Your task to perform on an android device: Go to network settings Image 0: 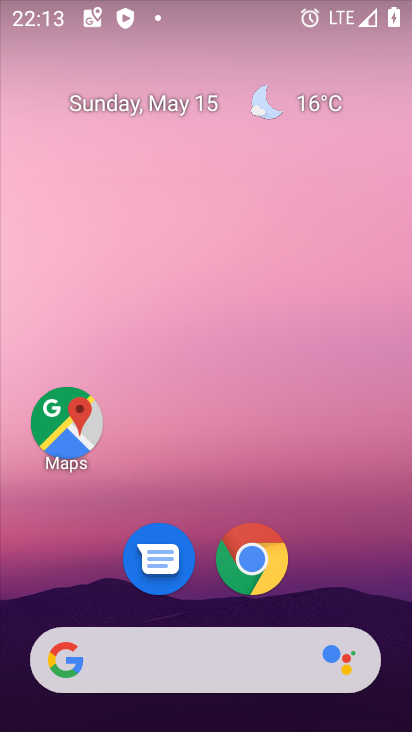
Step 0: drag from (336, 544) to (314, 25)
Your task to perform on an android device: Go to network settings Image 1: 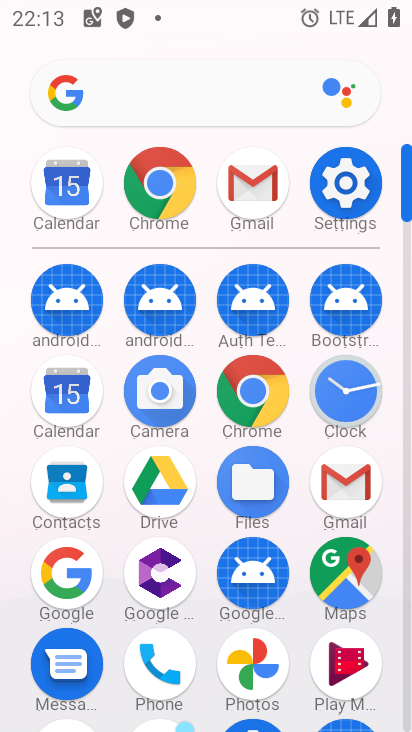
Step 1: click (336, 186)
Your task to perform on an android device: Go to network settings Image 2: 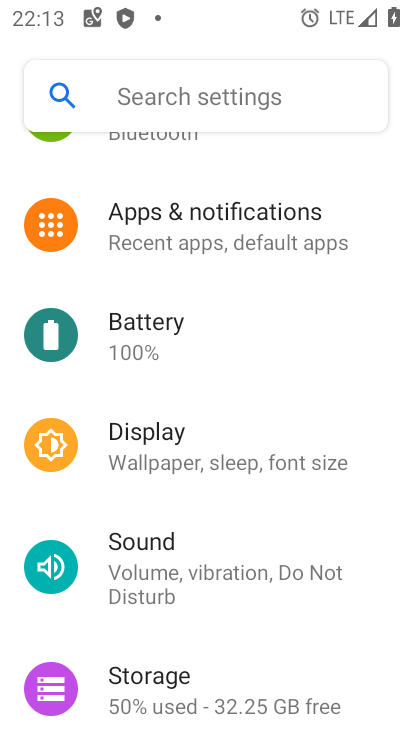
Step 2: drag from (228, 499) to (199, 231)
Your task to perform on an android device: Go to network settings Image 3: 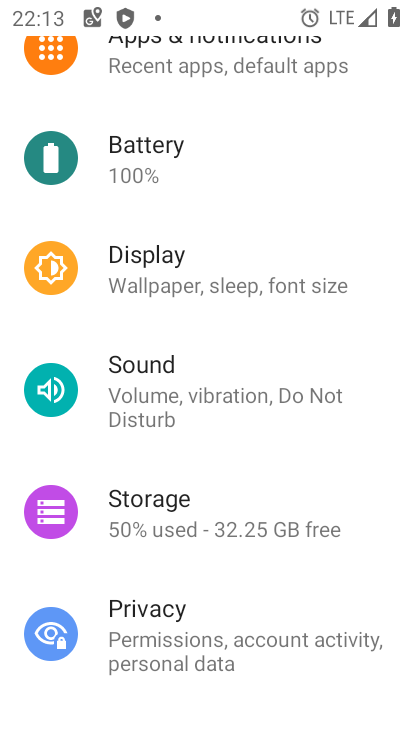
Step 3: drag from (238, 119) to (264, 726)
Your task to perform on an android device: Go to network settings Image 4: 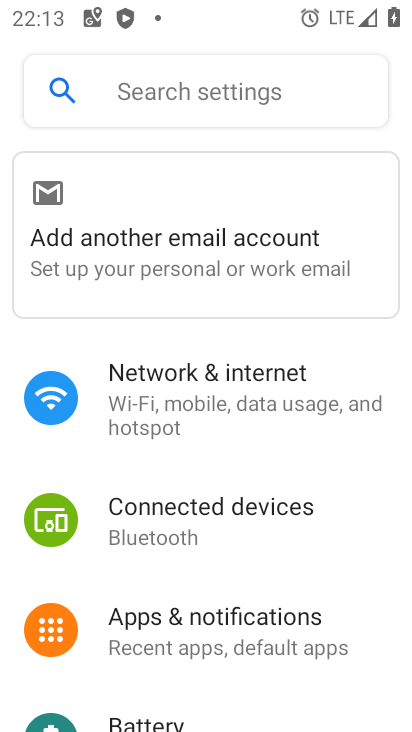
Step 4: click (219, 387)
Your task to perform on an android device: Go to network settings Image 5: 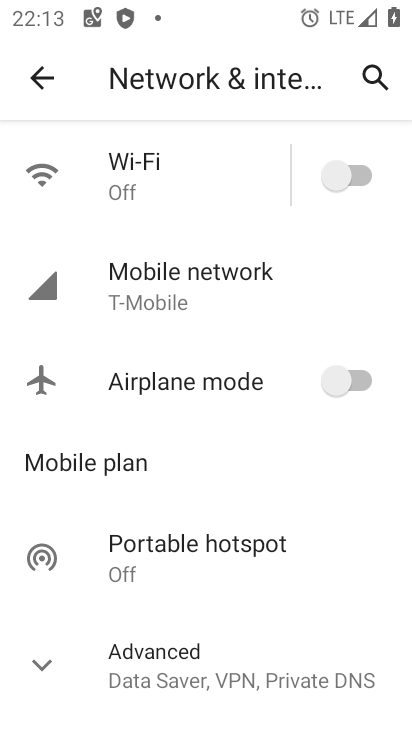
Step 5: task complete